Your task to perform on an android device: change the clock display to digital Image 0: 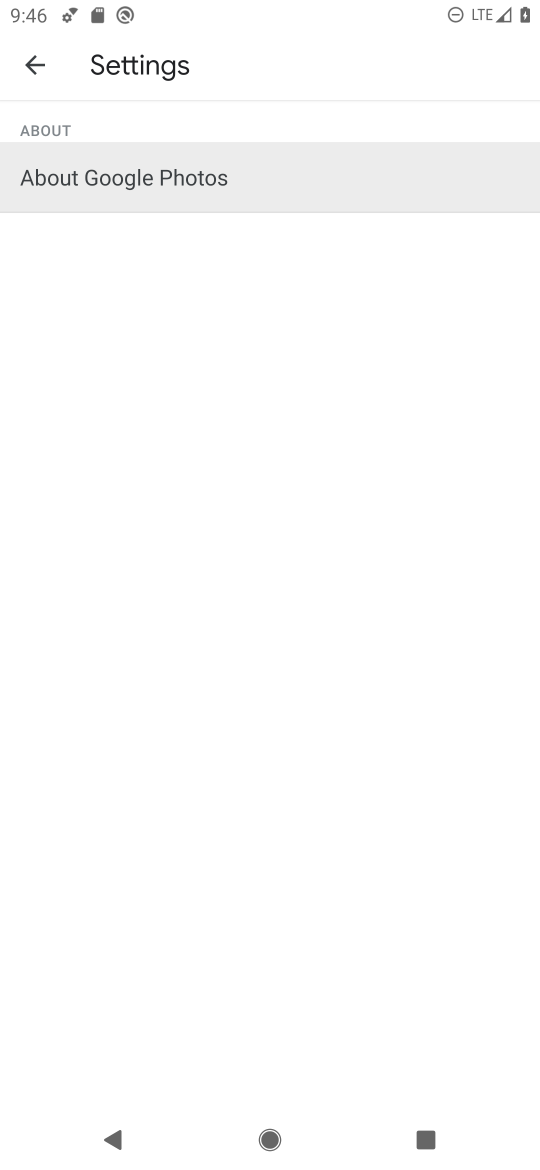
Step 0: press home button
Your task to perform on an android device: change the clock display to digital Image 1: 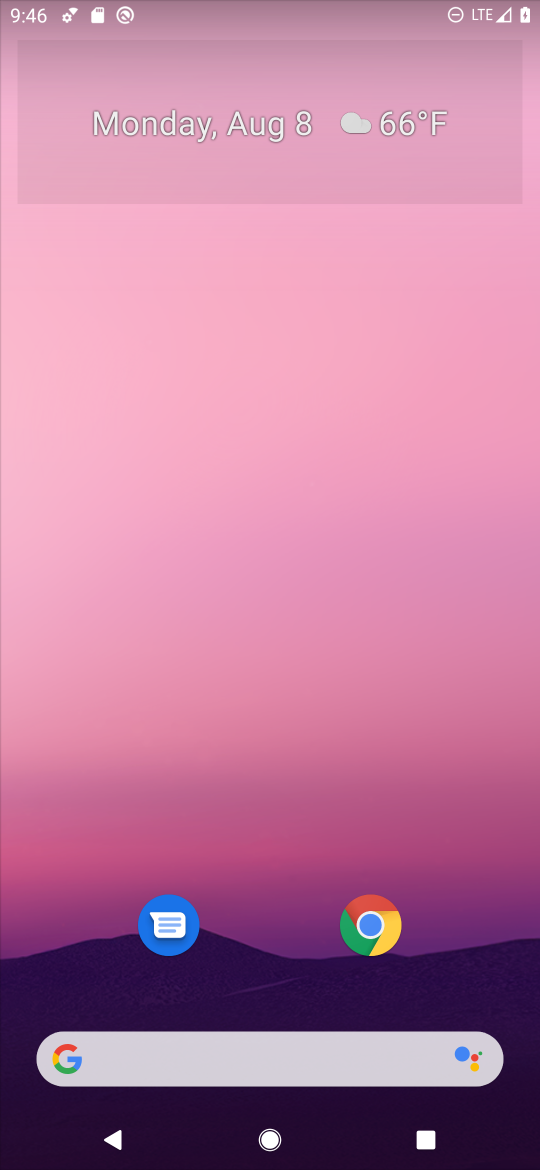
Step 1: drag from (288, 950) to (226, 259)
Your task to perform on an android device: change the clock display to digital Image 2: 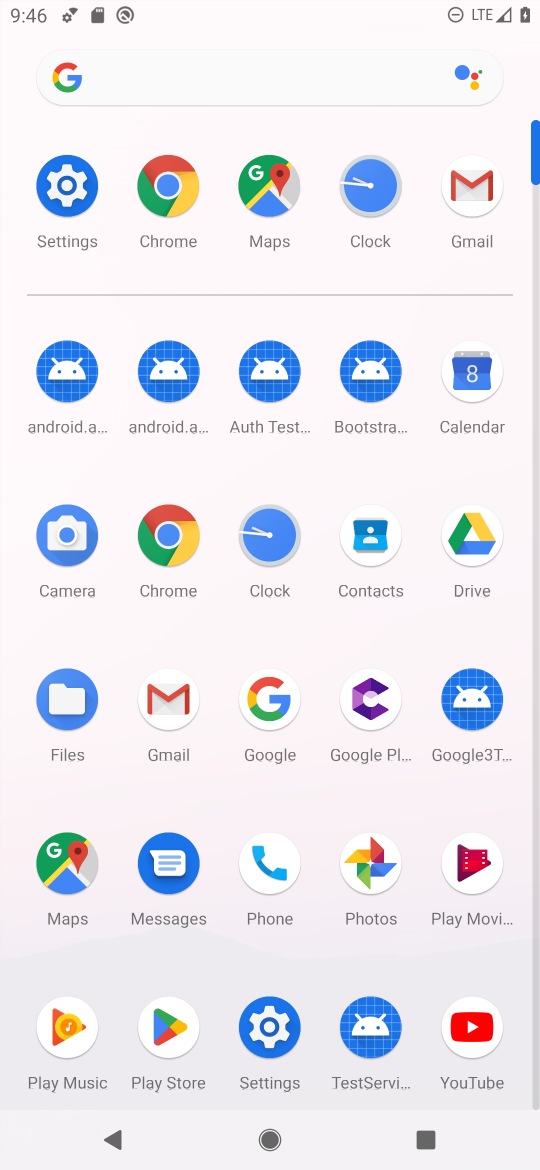
Step 2: click (269, 531)
Your task to perform on an android device: change the clock display to digital Image 3: 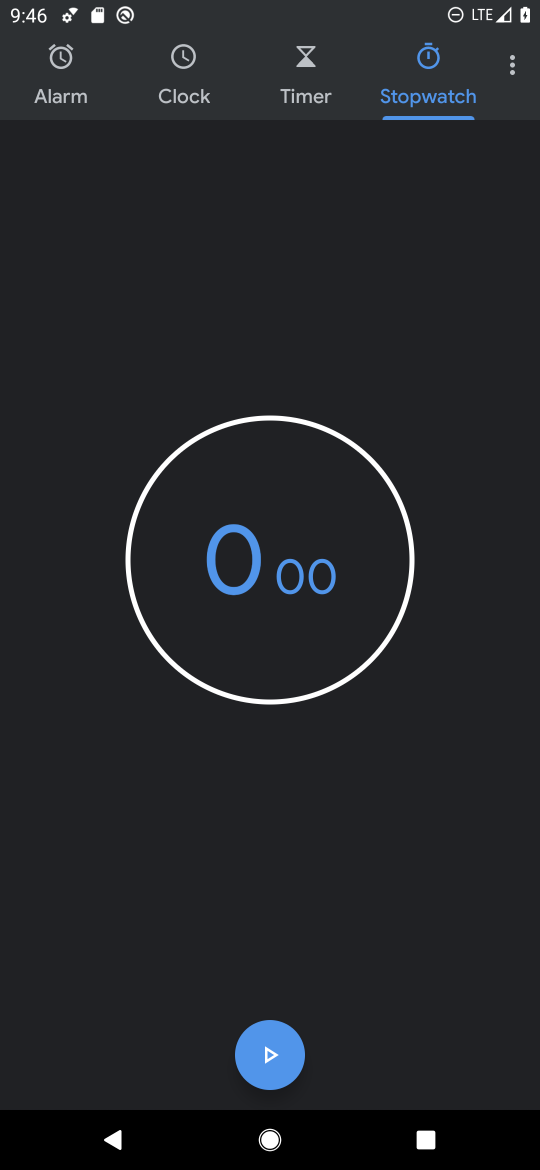
Step 3: click (513, 50)
Your task to perform on an android device: change the clock display to digital Image 4: 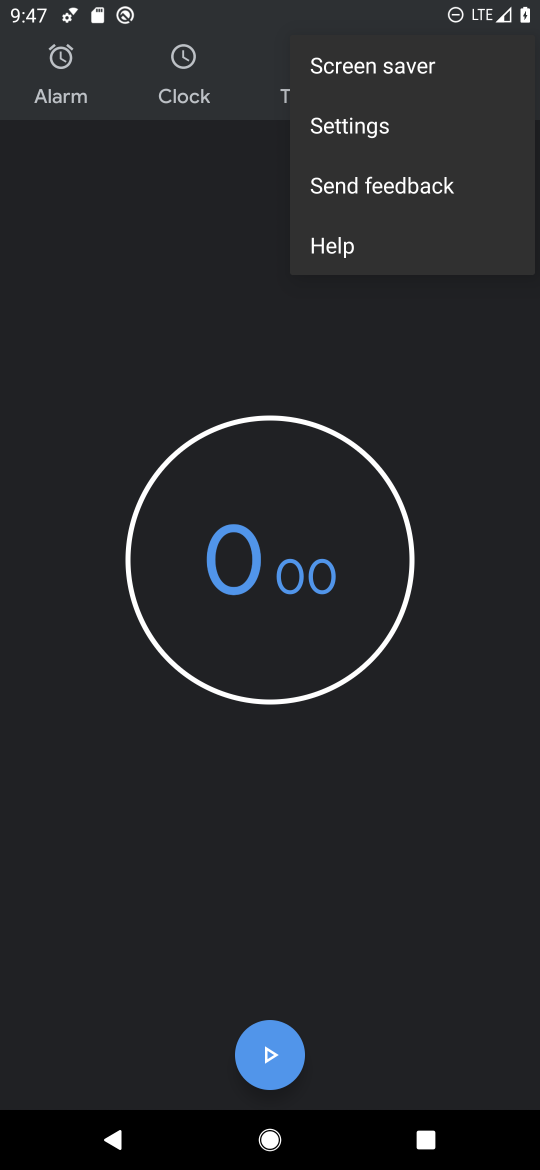
Step 4: click (366, 120)
Your task to perform on an android device: change the clock display to digital Image 5: 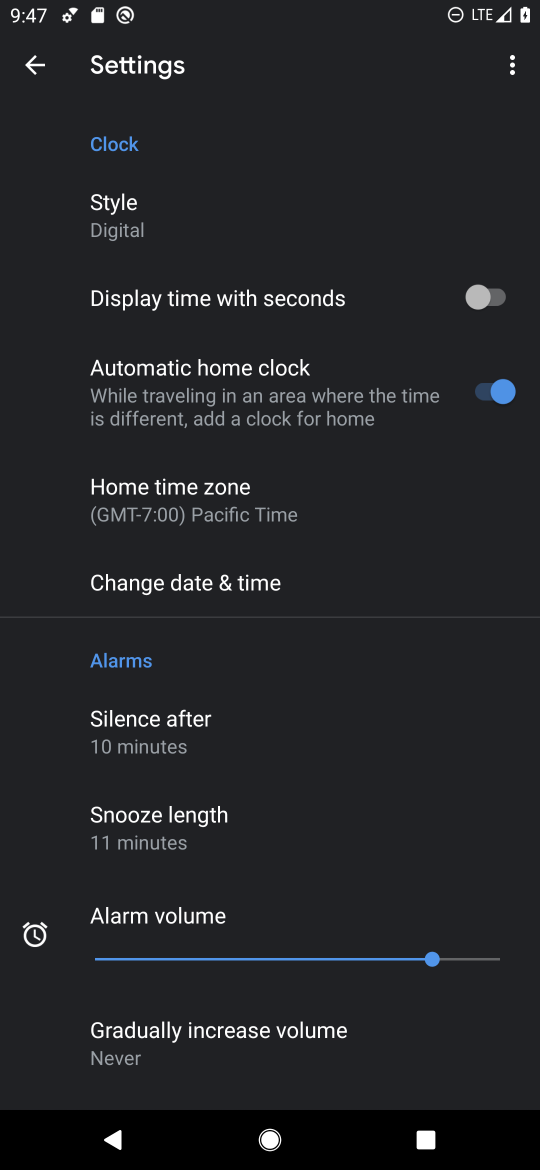
Step 5: task complete